Your task to perform on an android device: turn off notifications in google photos Image 0: 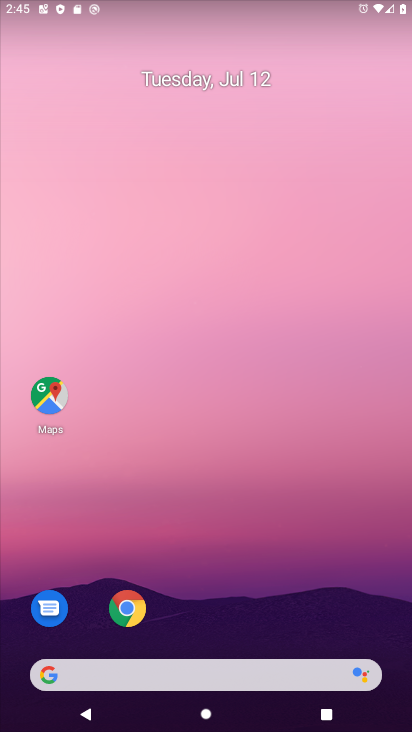
Step 0: drag from (188, 369) to (145, 124)
Your task to perform on an android device: turn off notifications in google photos Image 1: 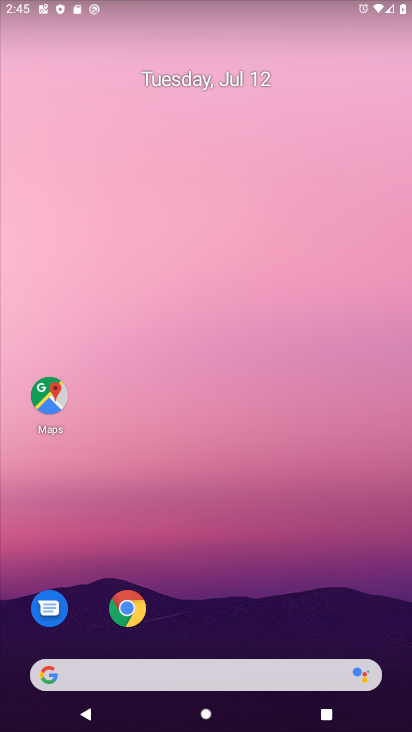
Step 1: drag from (235, 615) to (216, 130)
Your task to perform on an android device: turn off notifications in google photos Image 2: 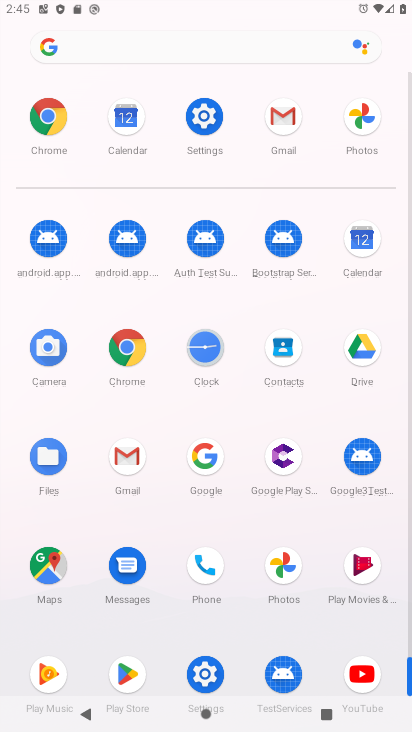
Step 2: click (288, 572)
Your task to perform on an android device: turn off notifications in google photos Image 3: 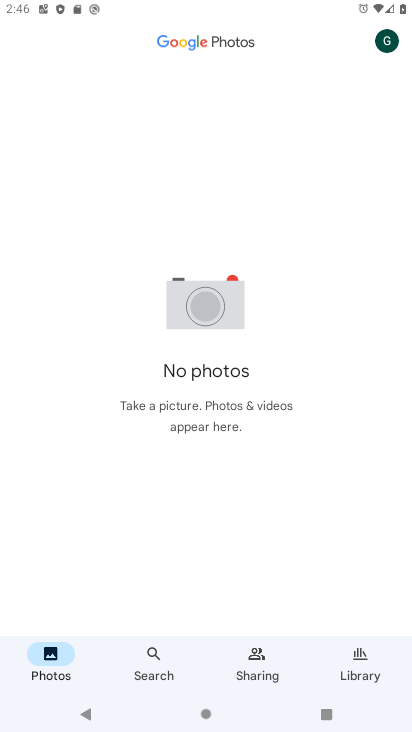
Step 3: press home button
Your task to perform on an android device: turn off notifications in google photos Image 4: 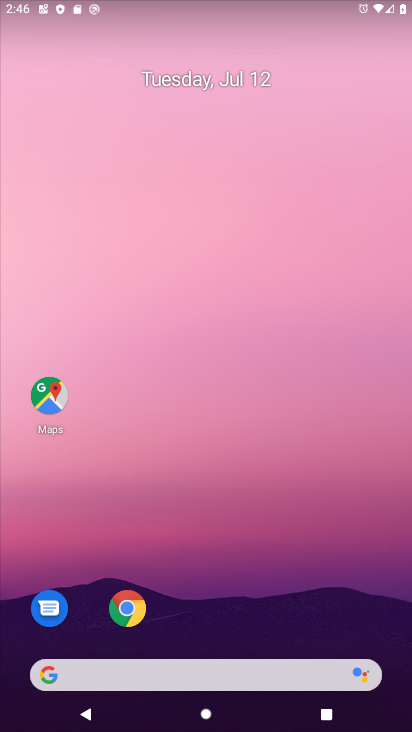
Step 4: drag from (319, 525) to (134, 0)
Your task to perform on an android device: turn off notifications in google photos Image 5: 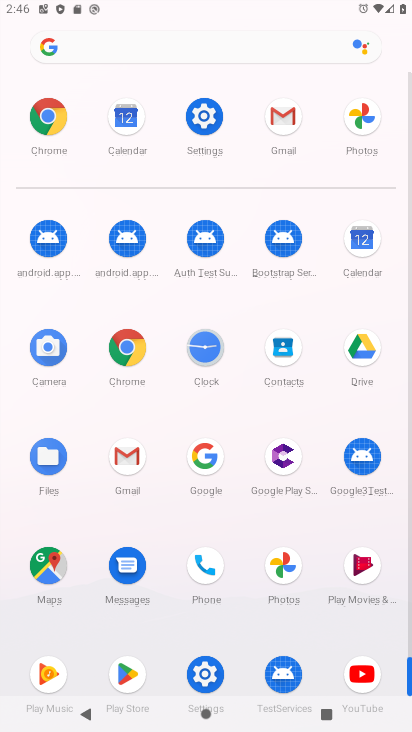
Step 5: click (284, 553)
Your task to perform on an android device: turn off notifications in google photos Image 6: 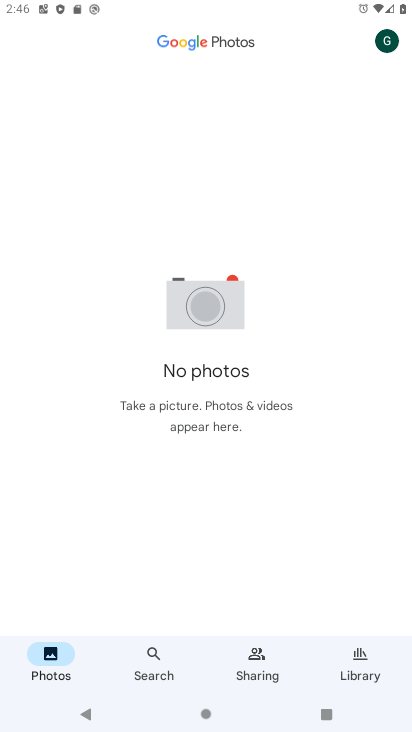
Step 6: click (390, 41)
Your task to perform on an android device: turn off notifications in google photos Image 7: 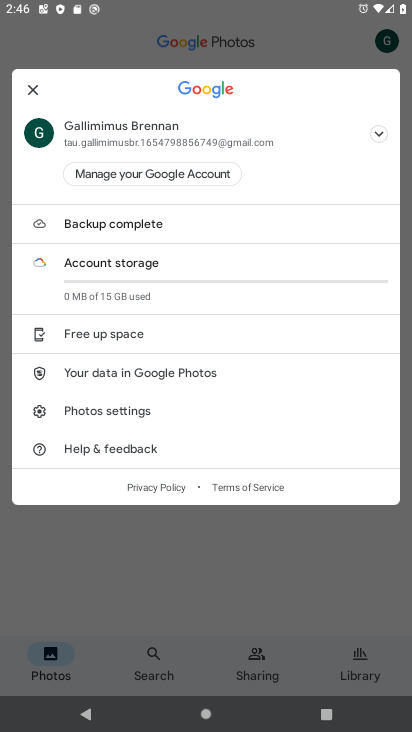
Step 7: click (115, 413)
Your task to perform on an android device: turn off notifications in google photos Image 8: 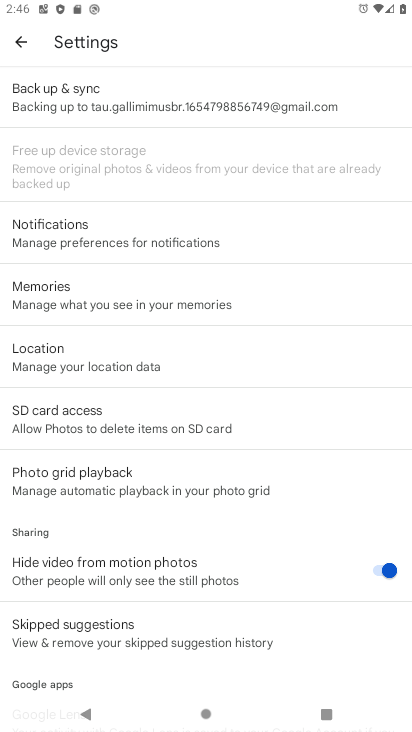
Step 8: click (124, 234)
Your task to perform on an android device: turn off notifications in google photos Image 9: 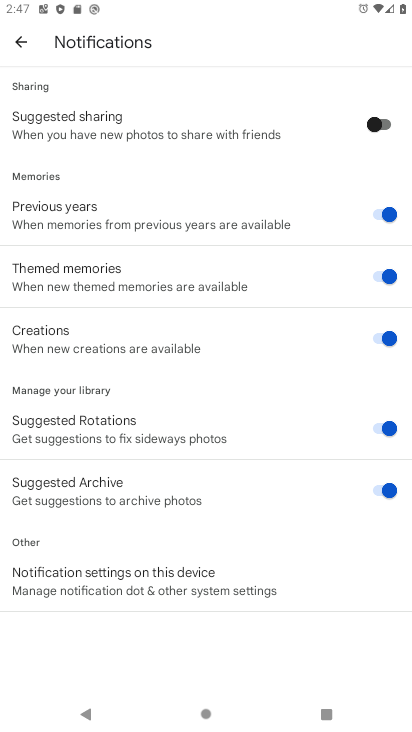
Step 9: drag from (258, 533) to (231, 178)
Your task to perform on an android device: turn off notifications in google photos Image 10: 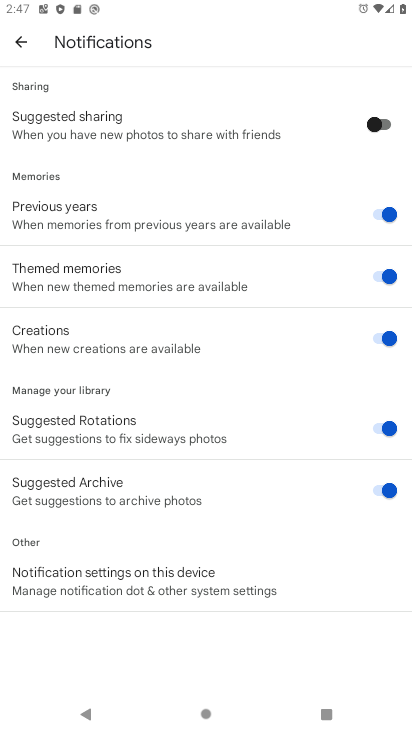
Step 10: click (149, 580)
Your task to perform on an android device: turn off notifications in google photos Image 11: 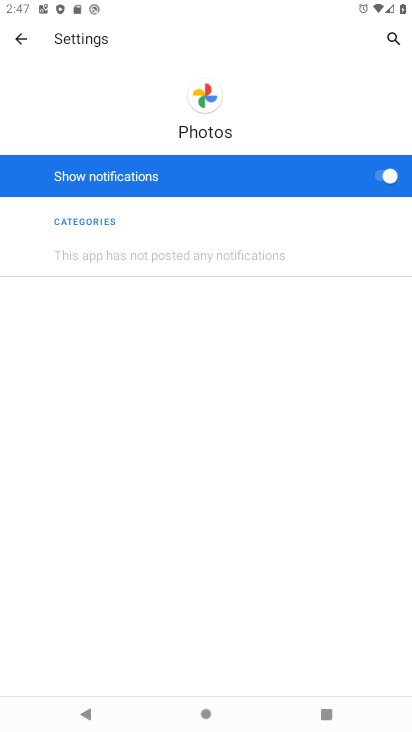
Step 11: click (371, 175)
Your task to perform on an android device: turn off notifications in google photos Image 12: 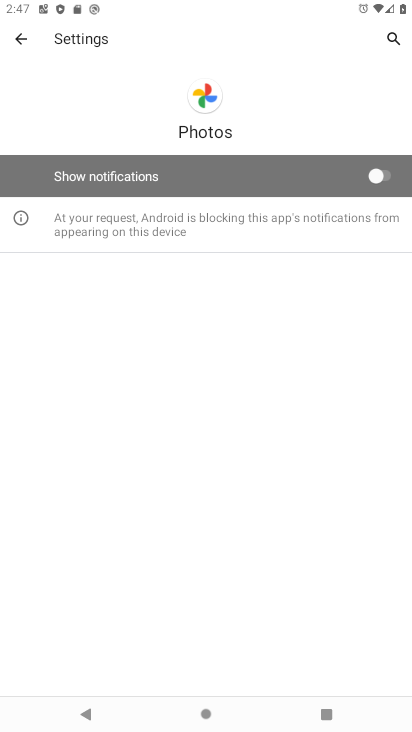
Step 12: task complete